Your task to perform on an android device: open a new tab in the chrome app Image 0: 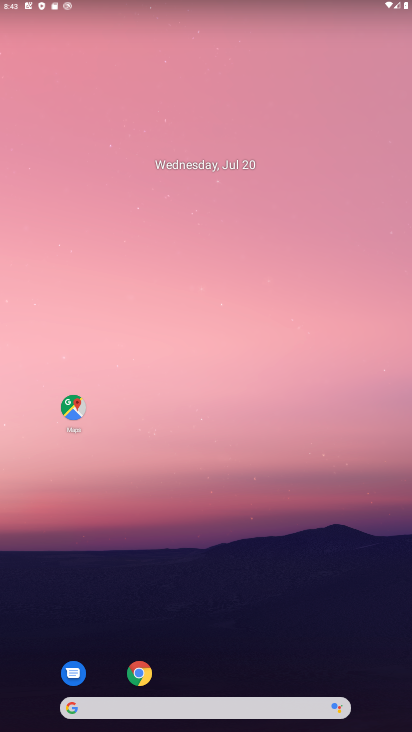
Step 0: click (219, 171)
Your task to perform on an android device: open a new tab in the chrome app Image 1: 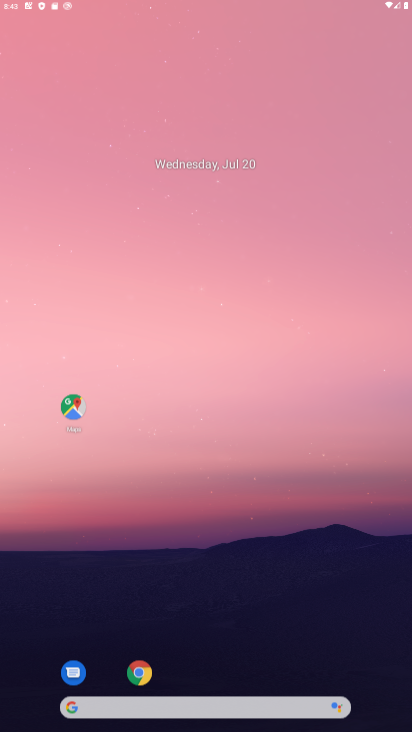
Step 1: drag from (223, 635) to (277, 0)
Your task to perform on an android device: open a new tab in the chrome app Image 2: 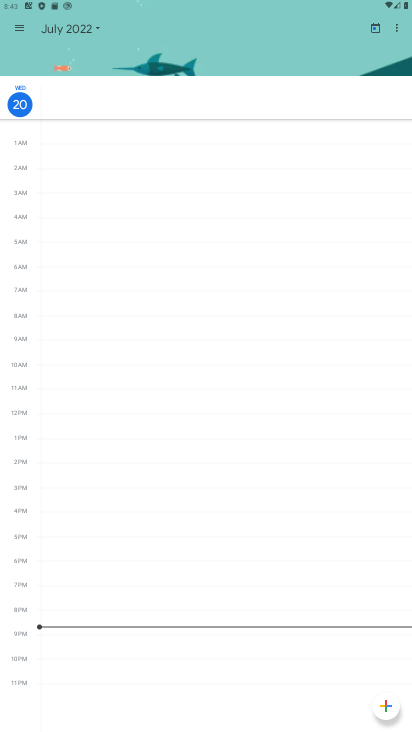
Step 2: press home button
Your task to perform on an android device: open a new tab in the chrome app Image 3: 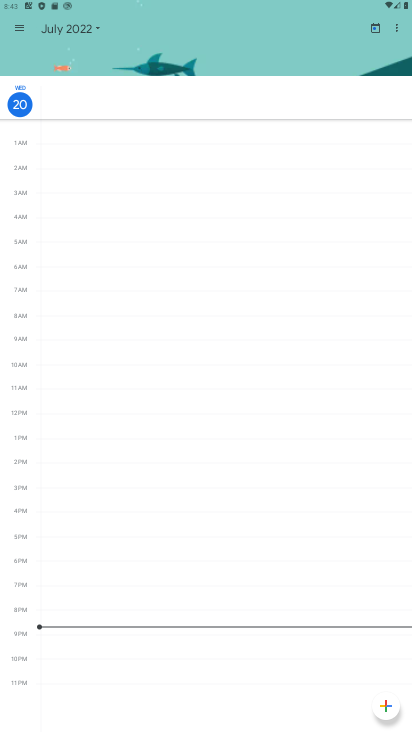
Step 3: drag from (158, 640) to (207, 109)
Your task to perform on an android device: open a new tab in the chrome app Image 4: 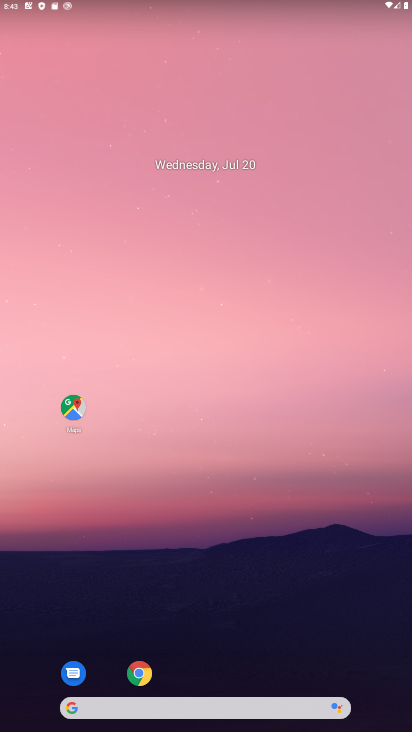
Step 4: drag from (183, 677) to (224, 236)
Your task to perform on an android device: open a new tab in the chrome app Image 5: 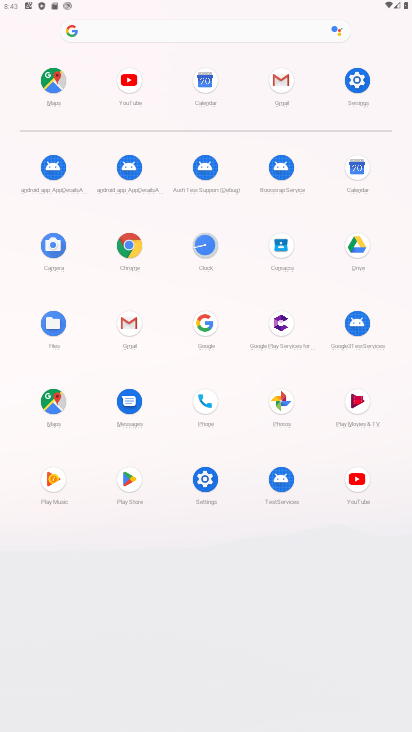
Step 5: click (134, 247)
Your task to perform on an android device: open a new tab in the chrome app Image 6: 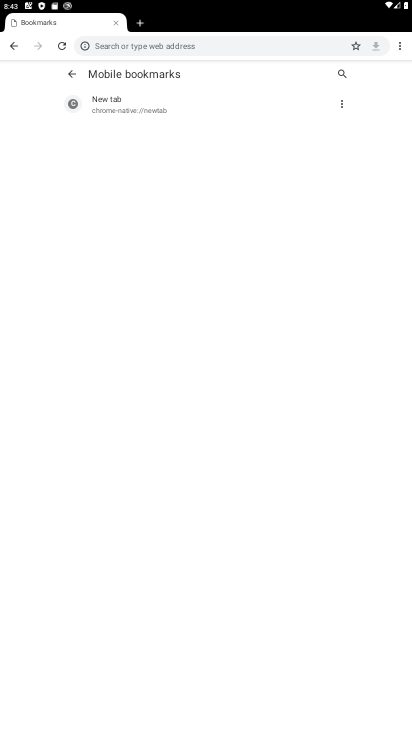
Step 6: task complete